Your task to perform on an android device: Open the map Image 0: 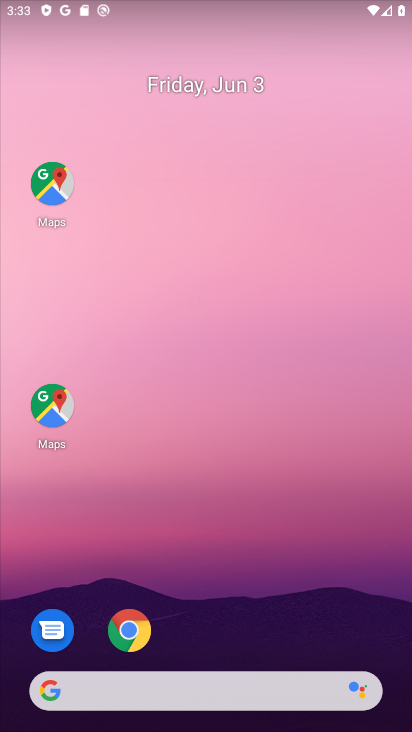
Step 0: drag from (317, 705) to (281, 8)
Your task to perform on an android device: Open the map Image 1: 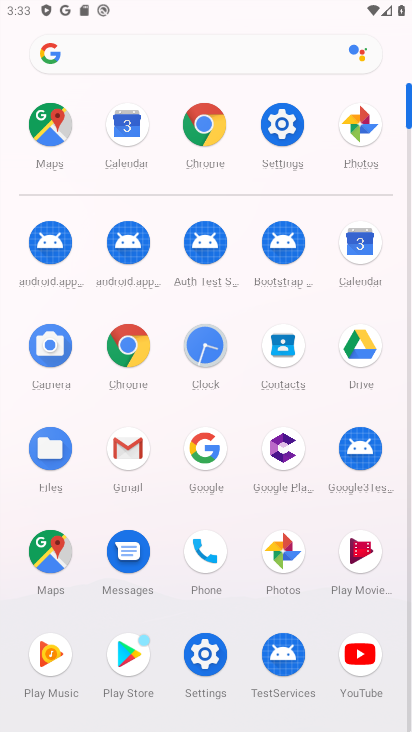
Step 1: click (51, 561)
Your task to perform on an android device: Open the map Image 2: 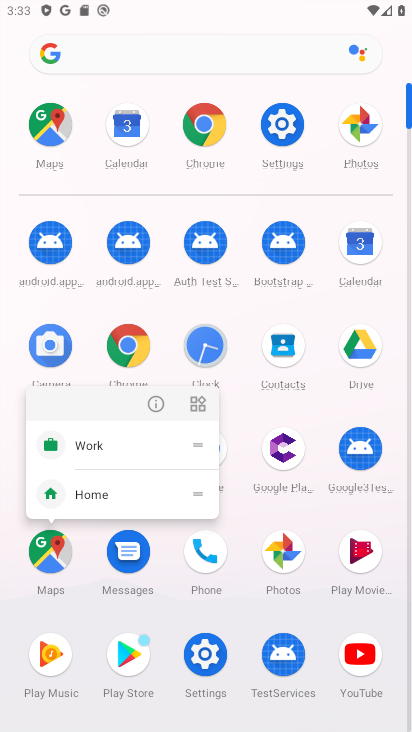
Step 2: click (51, 561)
Your task to perform on an android device: Open the map Image 3: 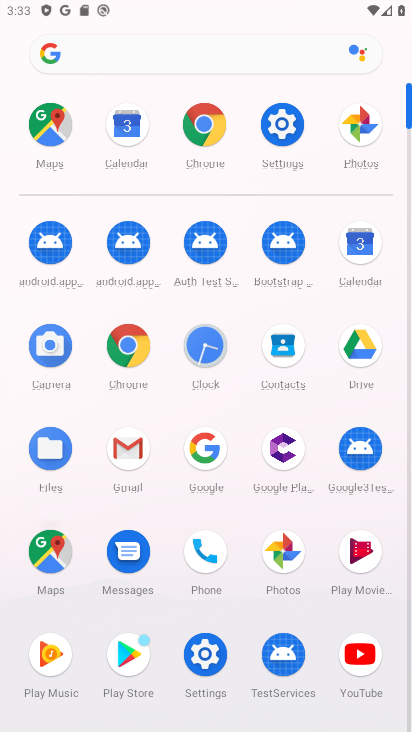
Step 3: click (51, 561)
Your task to perform on an android device: Open the map Image 4: 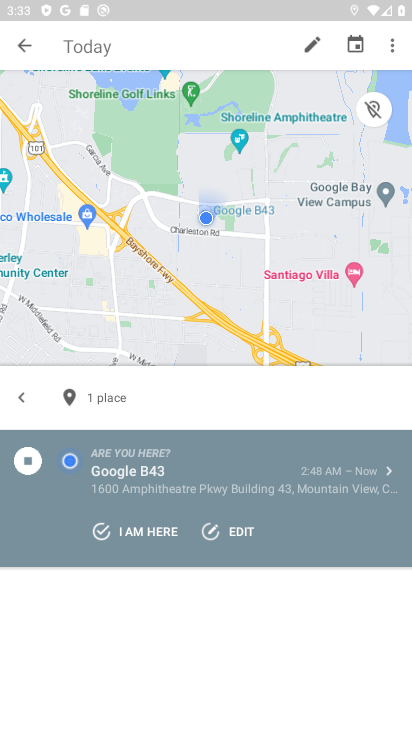
Step 4: task complete